Your task to perform on an android device: delete a single message in the gmail app Image 0: 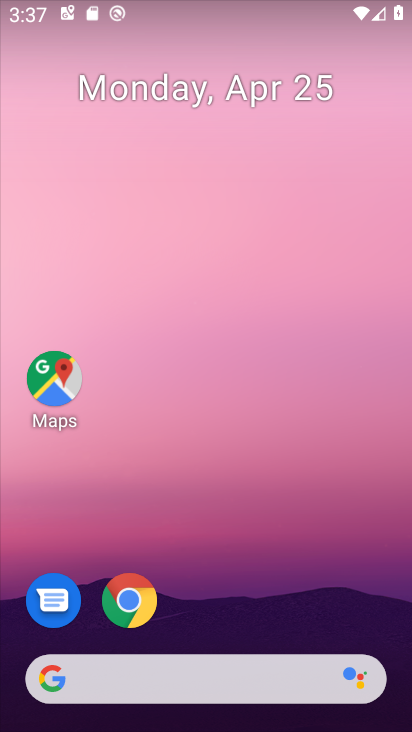
Step 0: drag from (274, 590) to (280, 51)
Your task to perform on an android device: delete a single message in the gmail app Image 1: 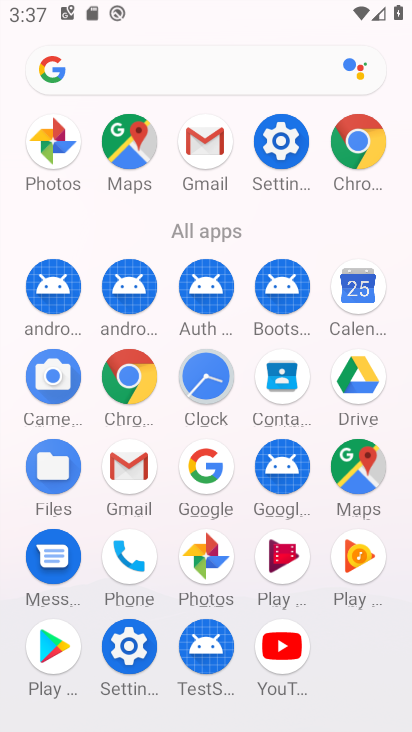
Step 1: drag from (2, 542) to (6, 226)
Your task to perform on an android device: delete a single message in the gmail app Image 2: 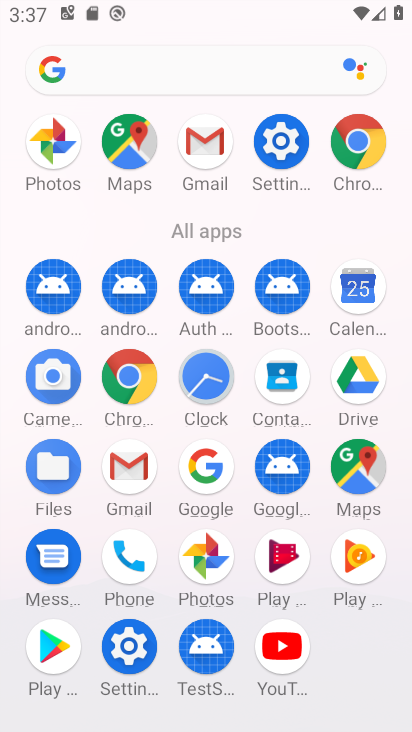
Step 2: click (202, 138)
Your task to perform on an android device: delete a single message in the gmail app Image 3: 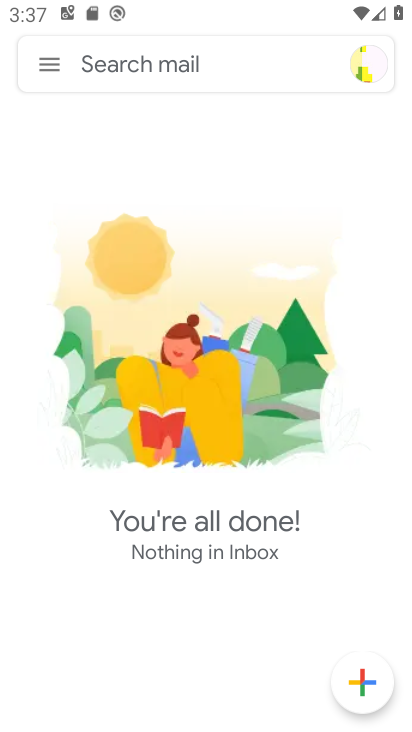
Step 3: click (36, 60)
Your task to perform on an android device: delete a single message in the gmail app Image 4: 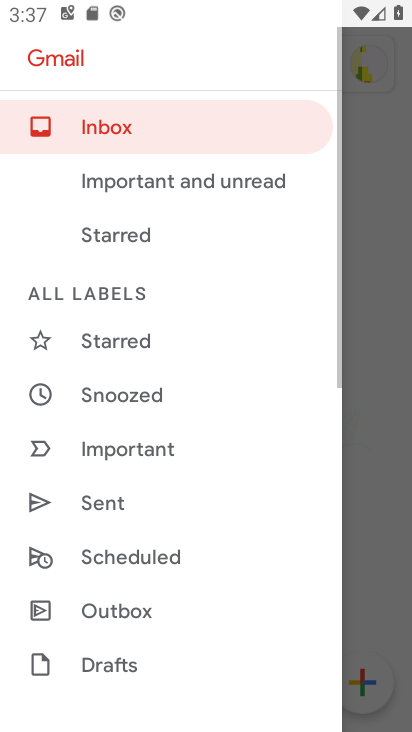
Step 4: drag from (214, 483) to (215, 107)
Your task to perform on an android device: delete a single message in the gmail app Image 5: 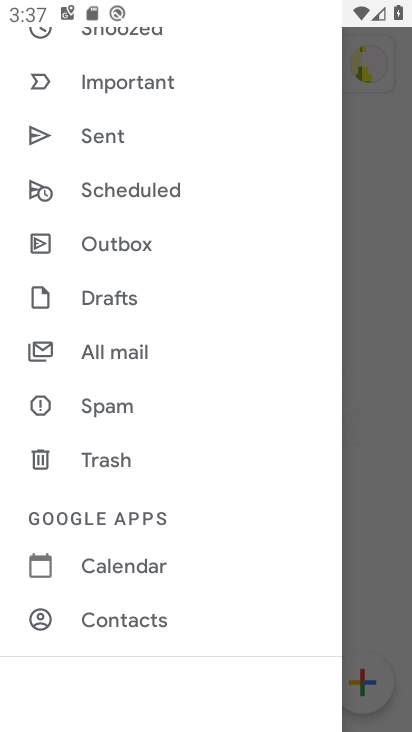
Step 5: drag from (225, 535) to (221, 160)
Your task to perform on an android device: delete a single message in the gmail app Image 6: 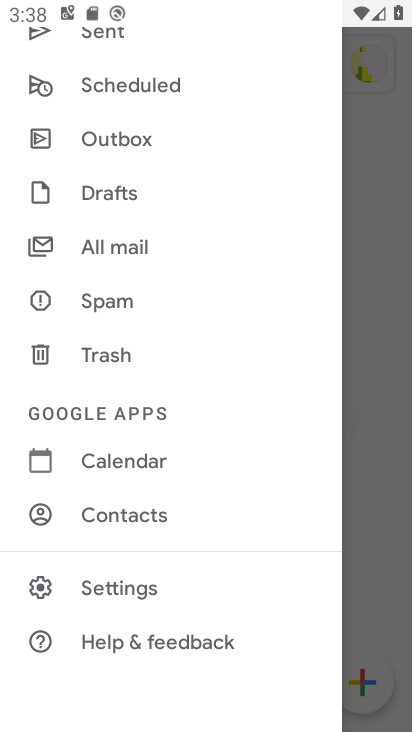
Step 6: click (118, 355)
Your task to perform on an android device: delete a single message in the gmail app Image 7: 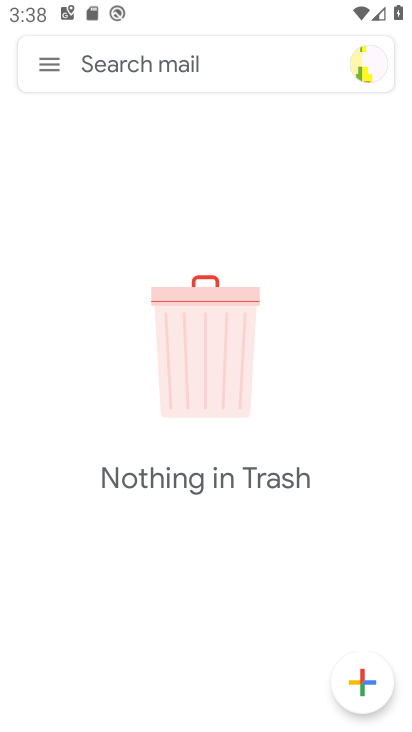
Step 7: click (43, 62)
Your task to perform on an android device: delete a single message in the gmail app Image 8: 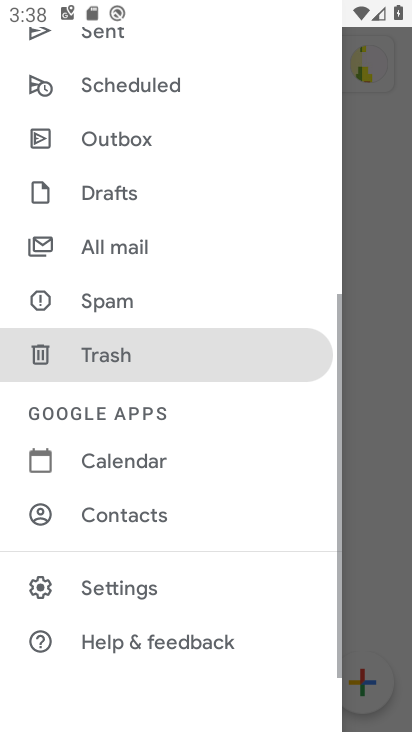
Step 8: drag from (204, 107) to (204, 516)
Your task to perform on an android device: delete a single message in the gmail app Image 9: 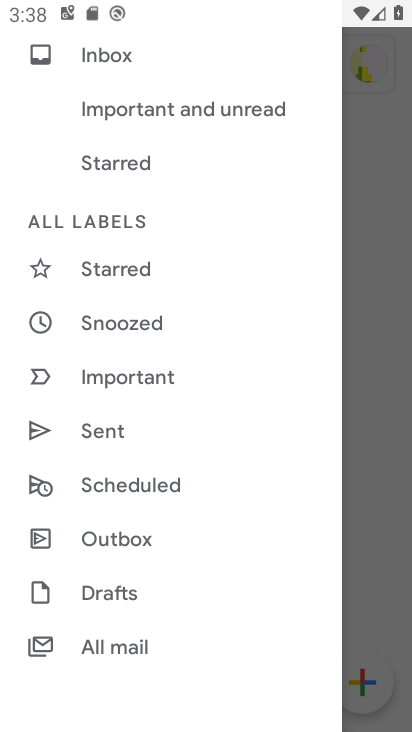
Step 9: drag from (178, 176) to (193, 581)
Your task to perform on an android device: delete a single message in the gmail app Image 10: 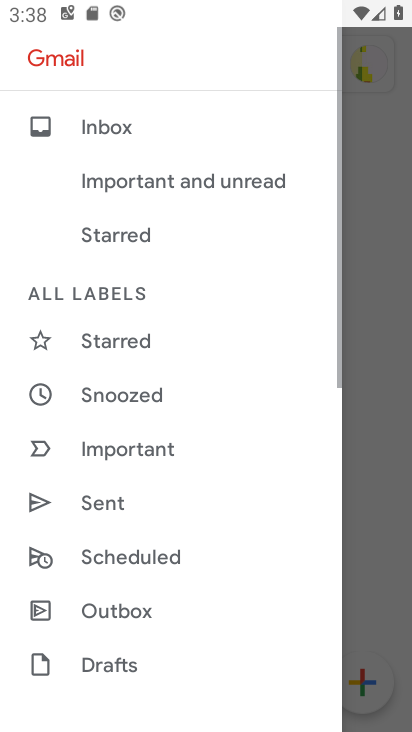
Step 10: click (127, 133)
Your task to perform on an android device: delete a single message in the gmail app Image 11: 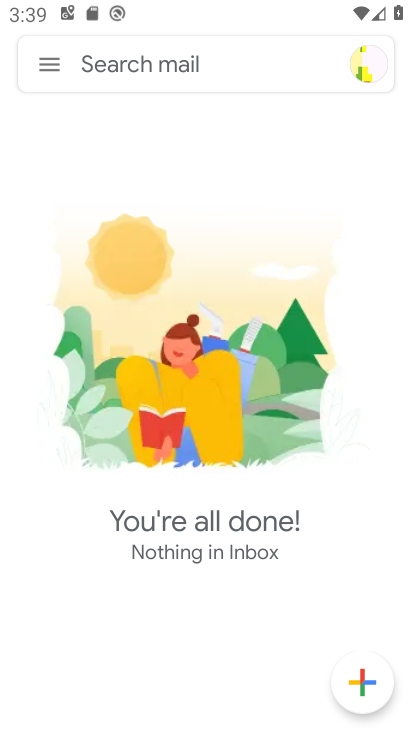
Step 11: click (51, 62)
Your task to perform on an android device: delete a single message in the gmail app Image 12: 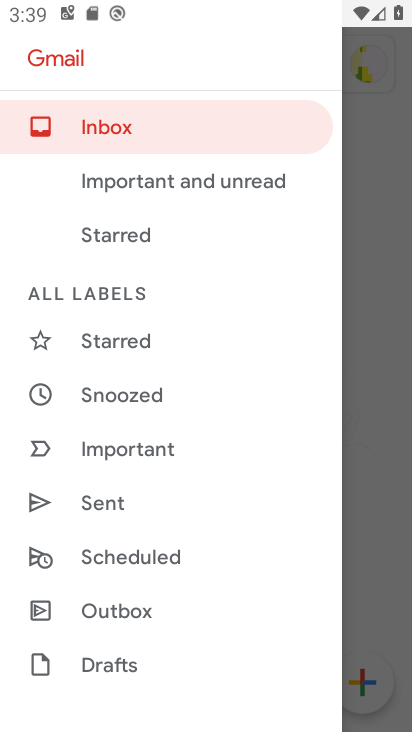
Step 12: task complete